Your task to perform on an android device: Open Google Chrome Image 0: 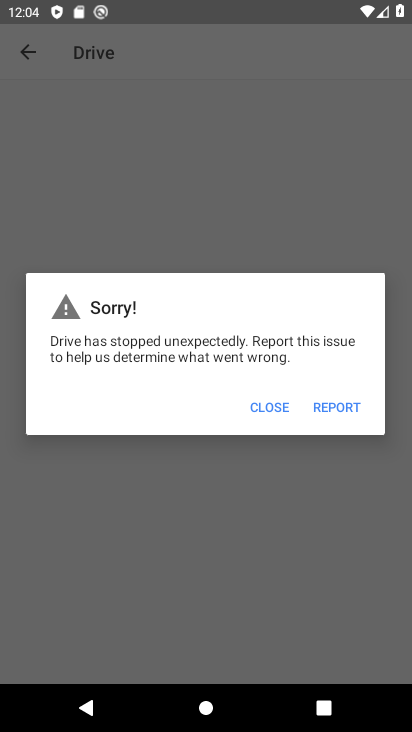
Step 0: press home button
Your task to perform on an android device: Open Google Chrome Image 1: 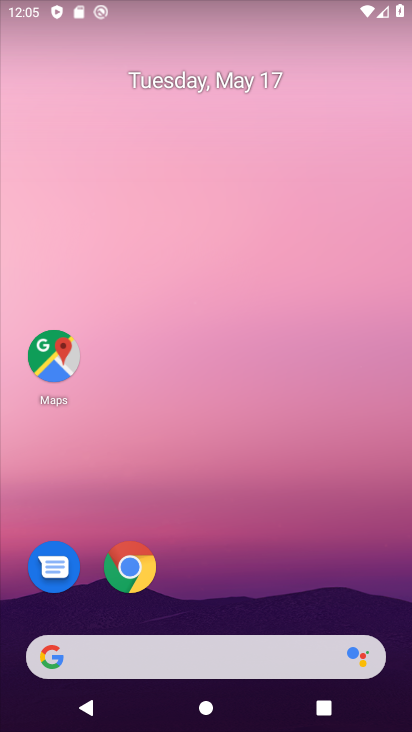
Step 1: click (127, 565)
Your task to perform on an android device: Open Google Chrome Image 2: 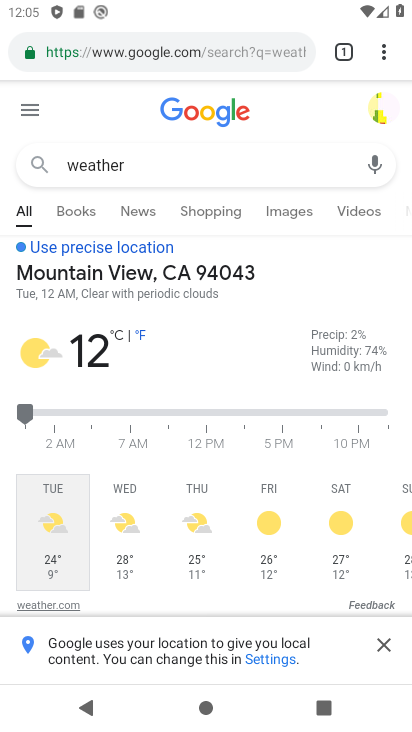
Step 2: task complete